Your task to perform on an android device: Open the map Image 0: 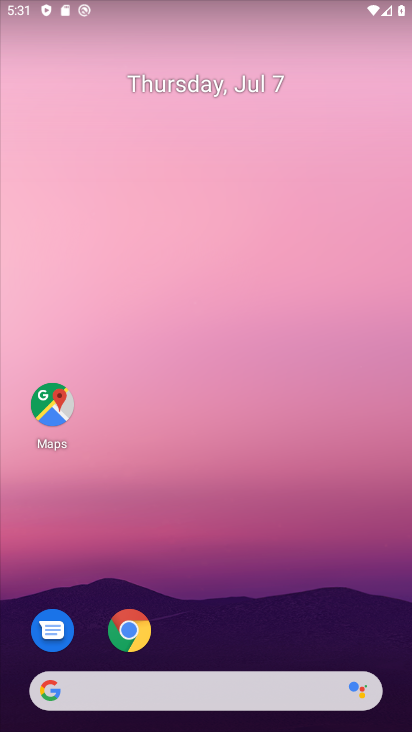
Step 0: click (49, 400)
Your task to perform on an android device: Open the map Image 1: 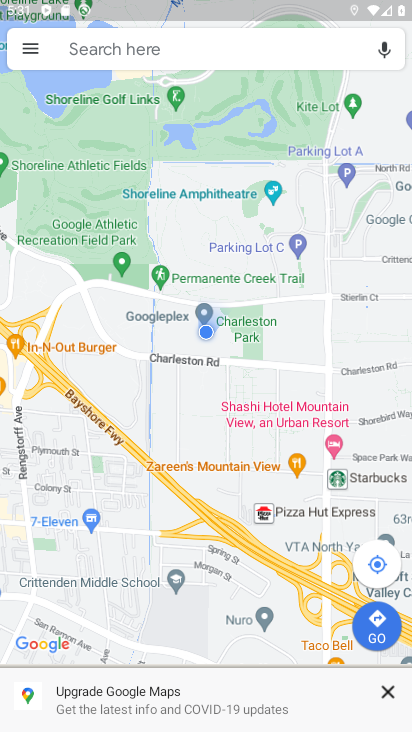
Step 1: task complete